Your task to perform on an android device: Go to CNN.com Image 0: 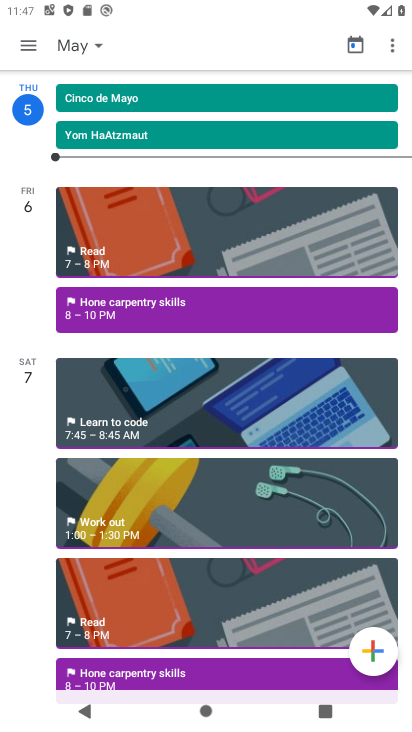
Step 0: press home button
Your task to perform on an android device: Go to CNN.com Image 1: 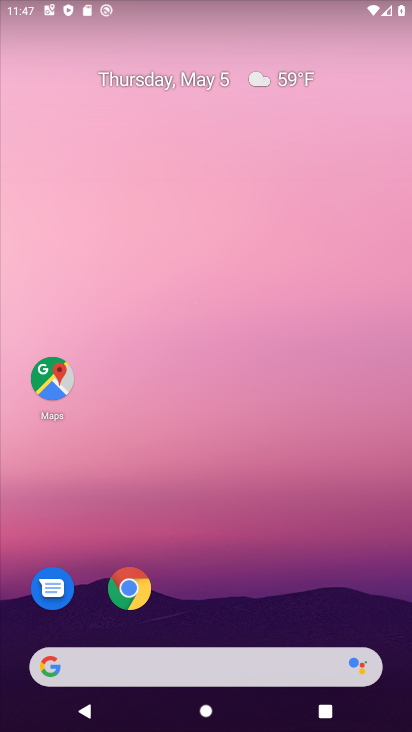
Step 1: click (253, 662)
Your task to perform on an android device: Go to CNN.com Image 2: 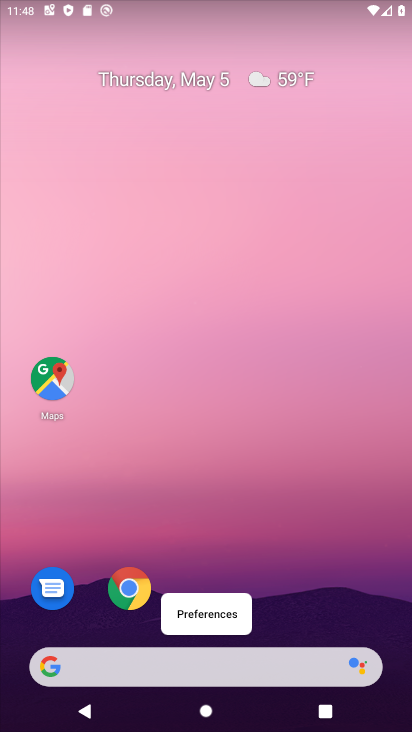
Step 2: click (190, 665)
Your task to perform on an android device: Go to CNN.com Image 3: 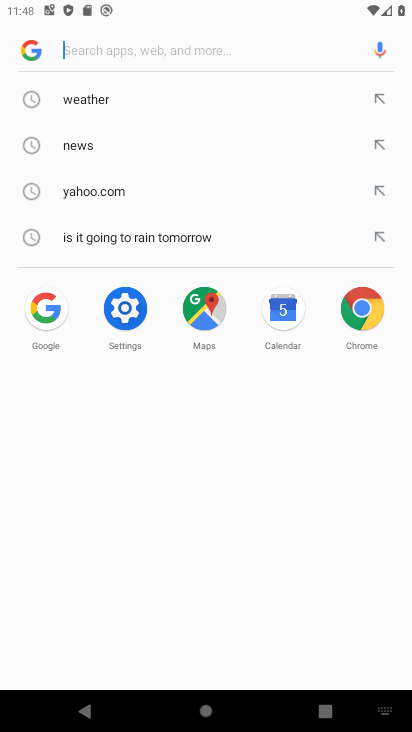
Step 3: type "cnn.com"
Your task to perform on an android device: Go to CNN.com Image 4: 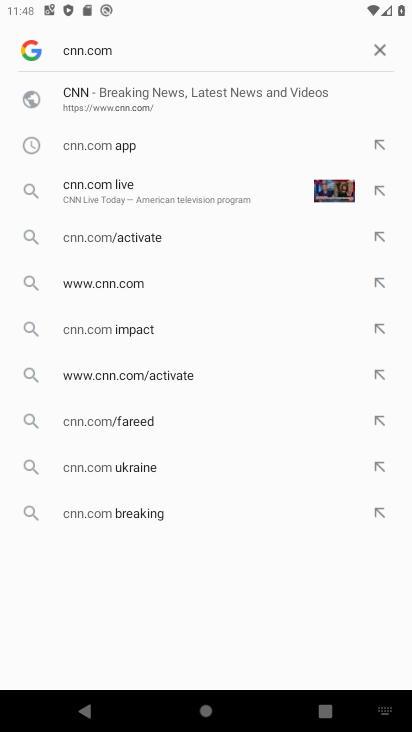
Step 4: click (131, 92)
Your task to perform on an android device: Go to CNN.com Image 5: 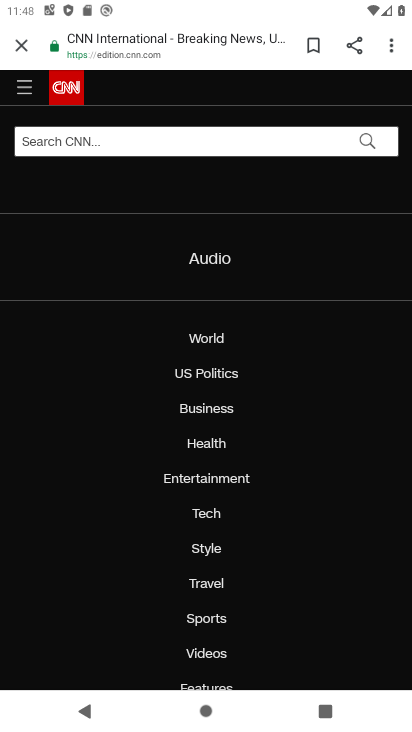
Step 5: task complete